Your task to perform on an android device: find photos in the google photos app Image 0: 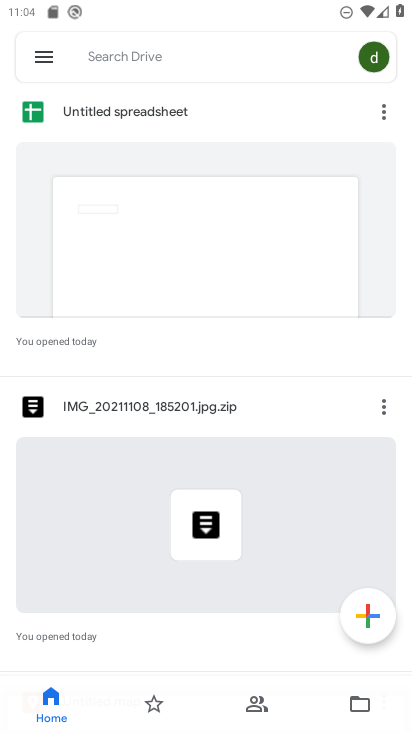
Step 0: press home button
Your task to perform on an android device: find photos in the google photos app Image 1: 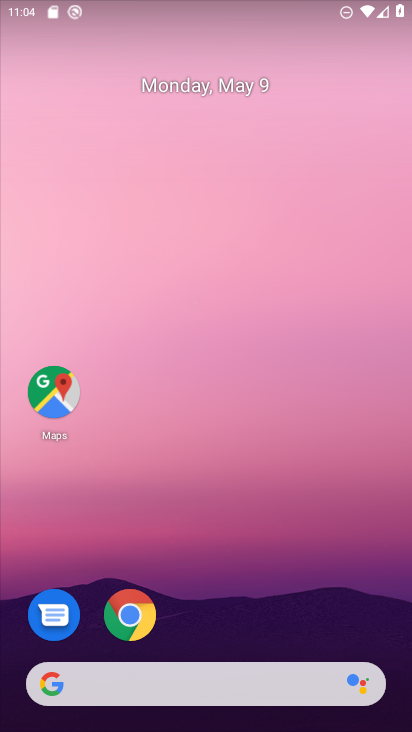
Step 1: drag from (206, 727) to (205, 531)
Your task to perform on an android device: find photos in the google photos app Image 2: 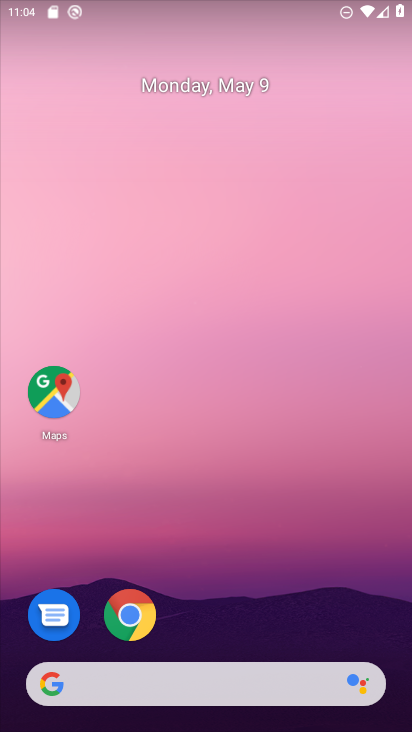
Step 2: drag from (183, 729) to (190, 102)
Your task to perform on an android device: find photos in the google photos app Image 3: 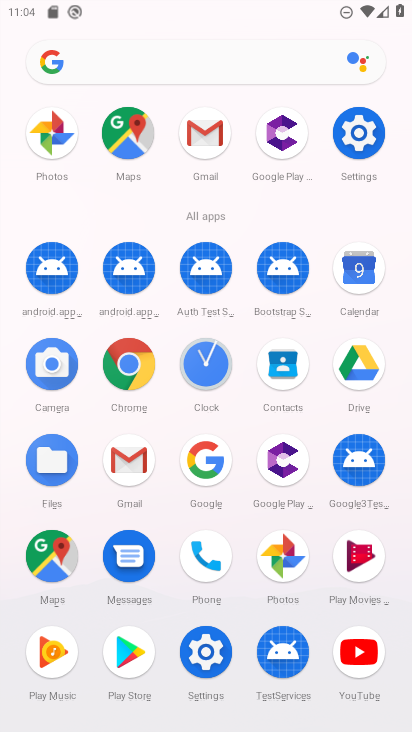
Step 3: click (281, 554)
Your task to perform on an android device: find photos in the google photos app Image 4: 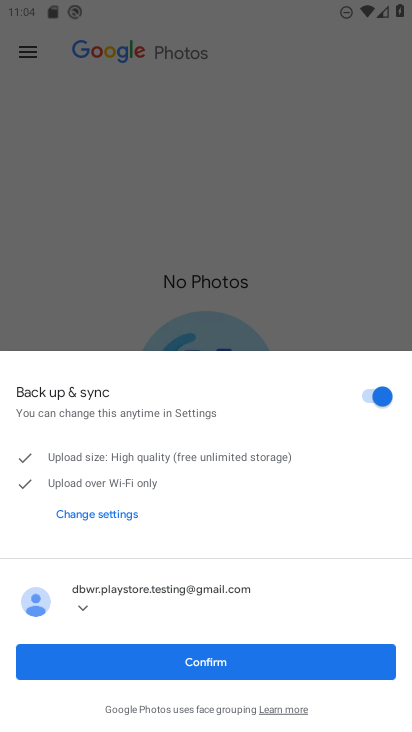
Step 4: click (226, 664)
Your task to perform on an android device: find photos in the google photos app Image 5: 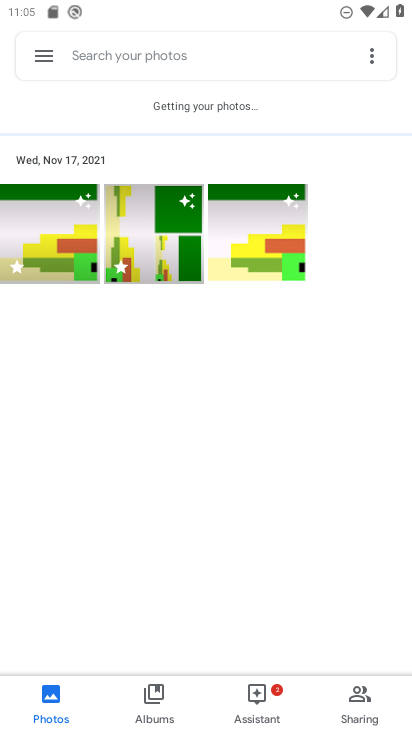
Step 5: click (49, 233)
Your task to perform on an android device: find photos in the google photos app Image 6: 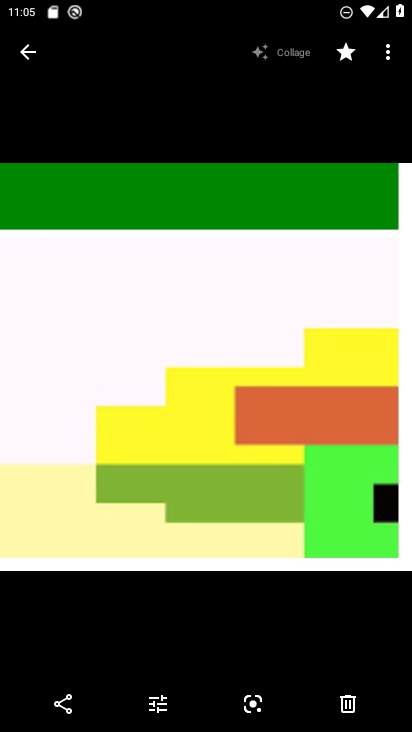
Step 6: task complete